Your task to perform on an android device: Open Google Chrome and open the bookmarks view Image 0: 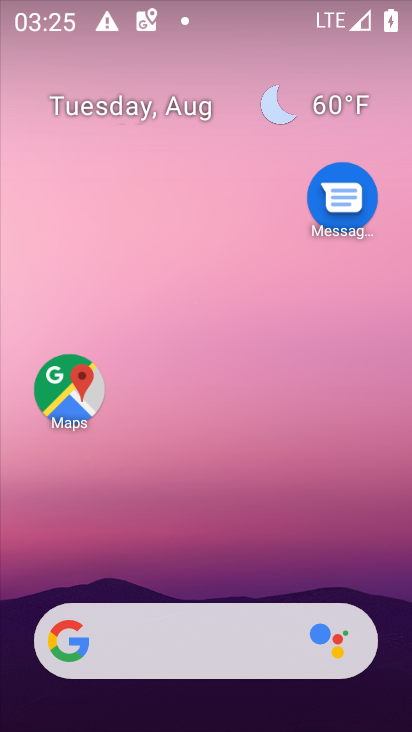
Step 0: drag from (215, 588) to (218, 73)
Your task to perform on an android device: Open Google Chrome and open the bookmarks view Image 1: 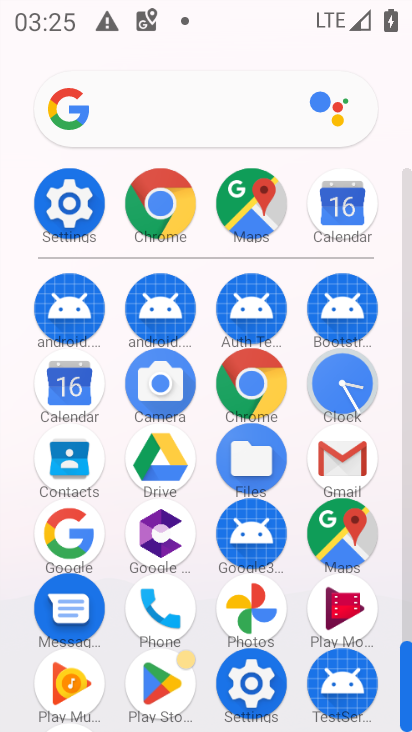
Step 1: click (144, 239)
Your task to perform on an android device: Open Google Chrome and open the bookmarks view Image 2: 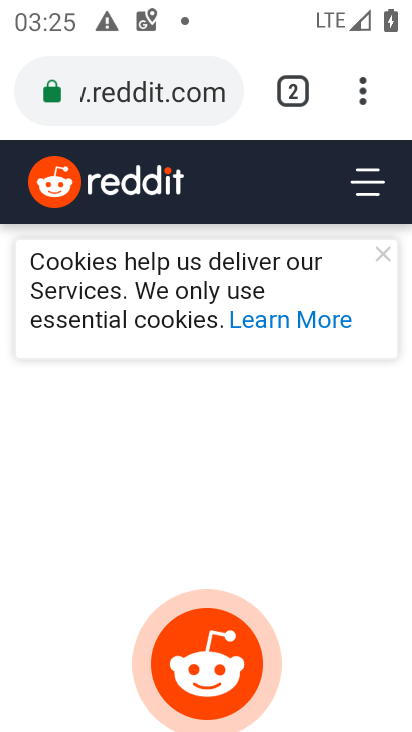
Step 2: click (356, 104)
Your task to perform on an android device: Open Google Chrome and open the bookmarks view Image 3: 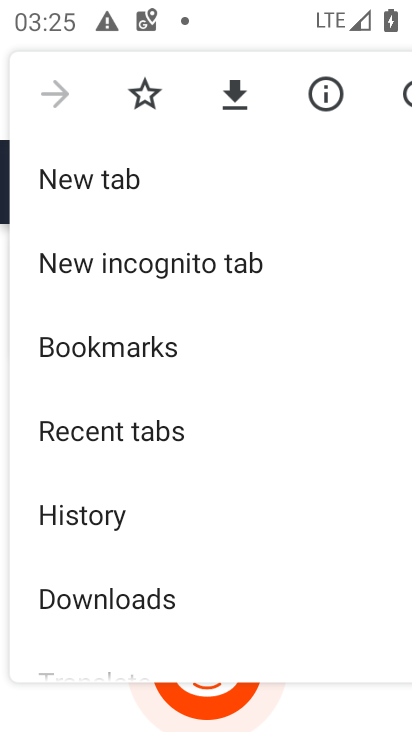
Step 3: click (202, 335)
Your task to perform on an android device: Open Google Chrome and open the bookmarks view Image 4: 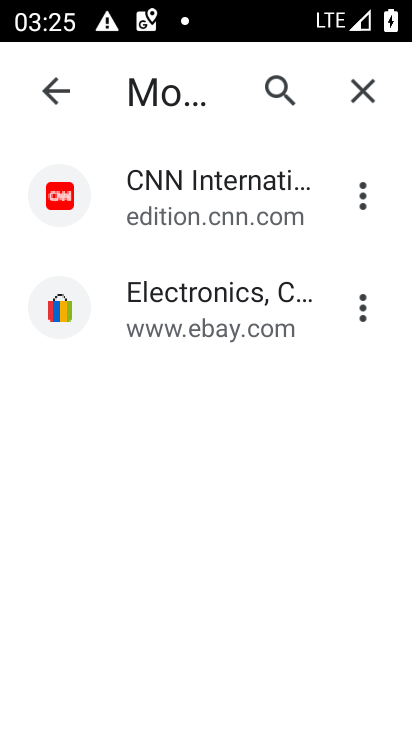
Step 4: task complete